Your task to perform on an android device: open app "DoorDash - Food Delivery" (install if not already installed) Image 0: 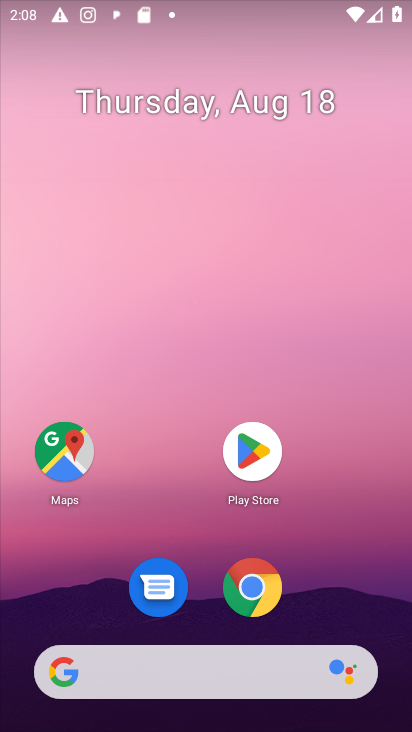
Step 0: click (257, 444)
Your task to perform on an android device: open app "DoorDash - Food Delivery" (install if not already installed) Image 1: 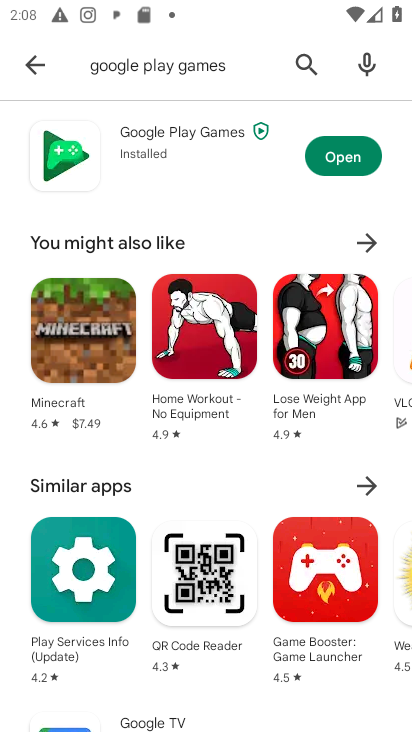
Step 1: click (306, 66)
Your task to perform on an android device: open app "DoorDash - Food Delivery" (install if not already installed) Image 2: 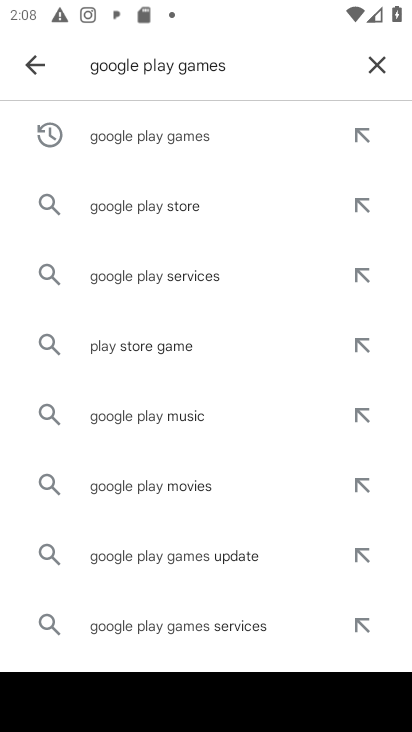
Step 2: click (374, 58)
Your task to perform on an android device: open app "DoorDash - Food Delivery" (install if not already installed) Image 3: 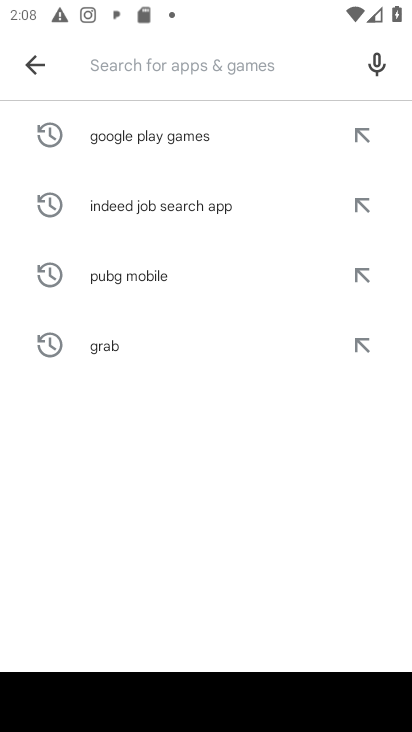
Step 3: type "DoorDash - Food Delivery"
Your task to perform on an android device: open app "DoorDash - Food Delivery" (install if not already installed) Image 4: 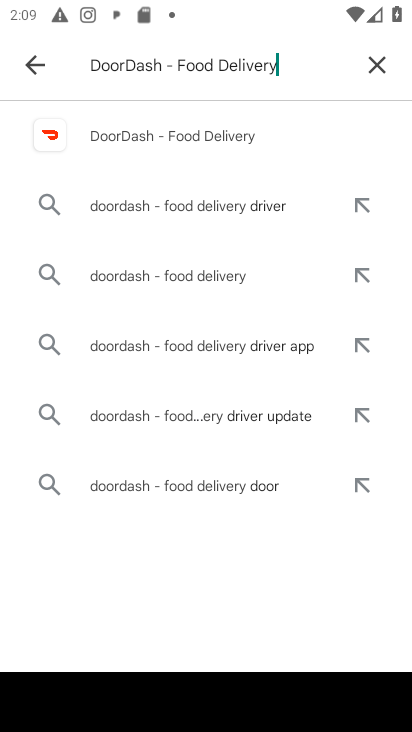
Step 4: click (235, 135)
Your task to perform on an android device: open app "DoorDash - Food Delivery" (install if not already installed) Image 5: 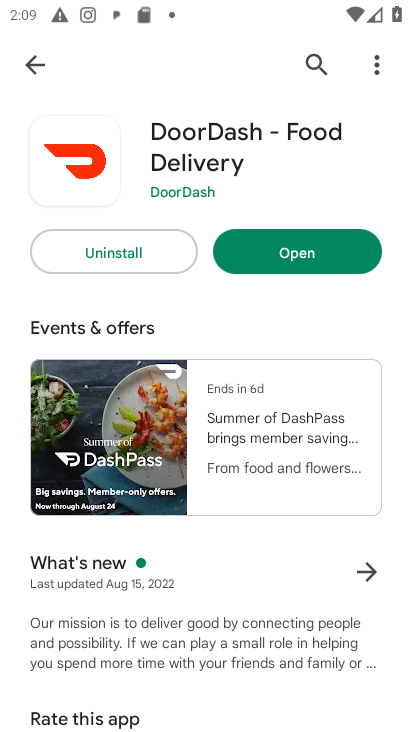
Step 5: click (293, 250)
Your task to perform on an android device: open app "DoorDash - Food Delivery" (install if not already installed) Image 6: 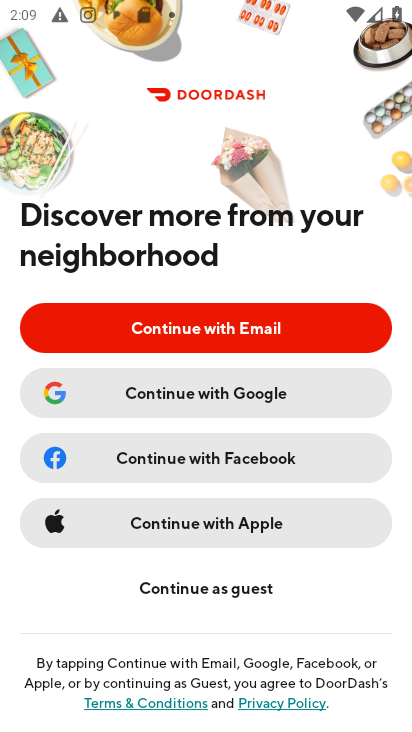
Step 6: task complete